Your task to perform on an android device: Toggle the flashlight Image 0: 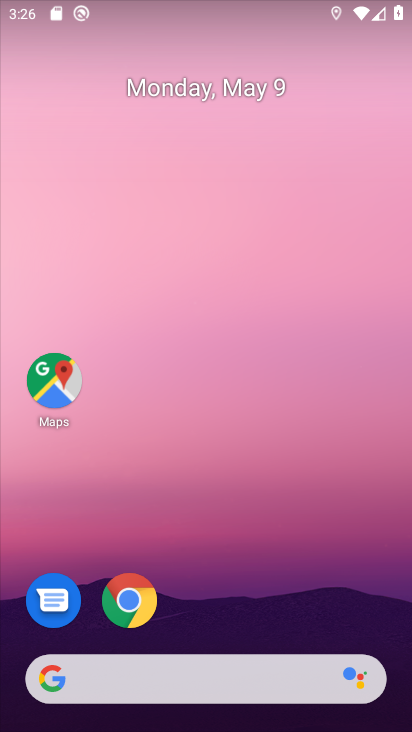
Step 0: drag from (223, 578) to (332, 74)
Your task to perform on an android device: Toggle the flashlight Image 1: 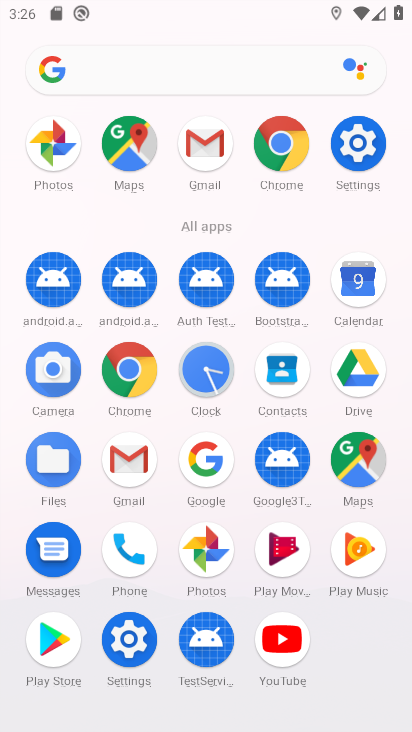
Step 1: click (374, 167)
Your task to perform on an android device: Toggle the flashlight Image 2: 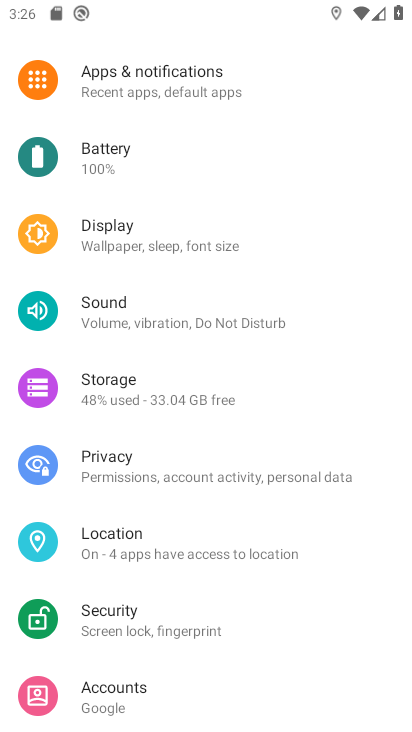
Step 2: drag from (261, 144) to (213, 526)
Your task to perform on an android device: Toggle the flashlight Image 3: 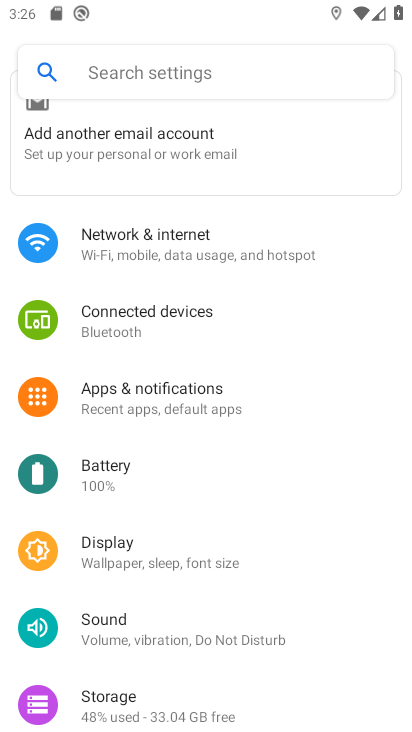
Step 3: click (215, 65)
Your task to perform on an android device: Toggle the flashlight Image 4: 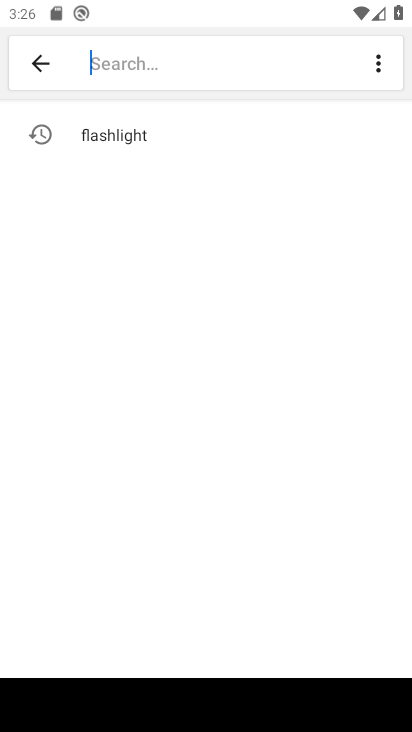
Step 4: type "flashlight"
Your task to perform on an android device: Toggle the flashlight Image 5: 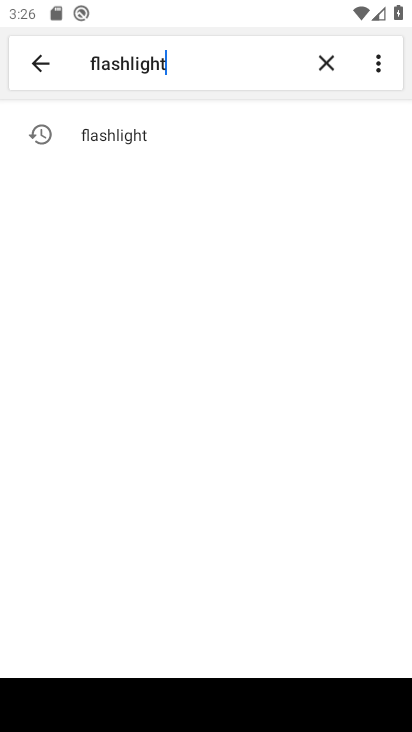
Step 5: click (138, 147)
Your task to perform on an android device: Toggle the flashlight Image 6: 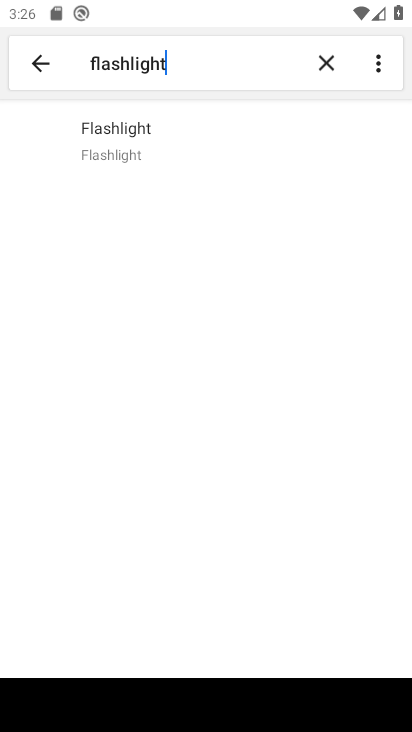
Step 6: task complete